Your task to perform on an android device: change notifications settings Image 0: 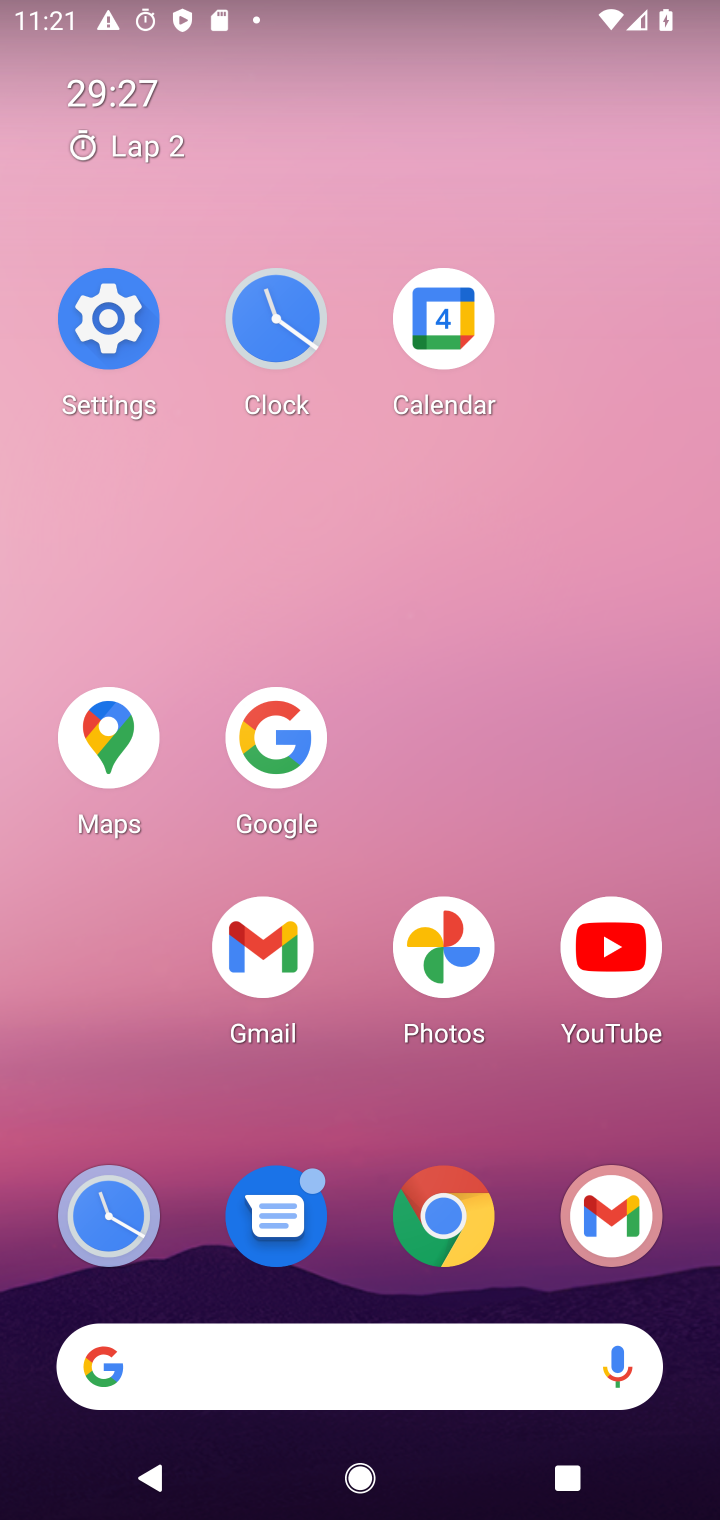
Step 0: click (98, 271)
Your task to perform on an android device: change notifications settings Image 1: 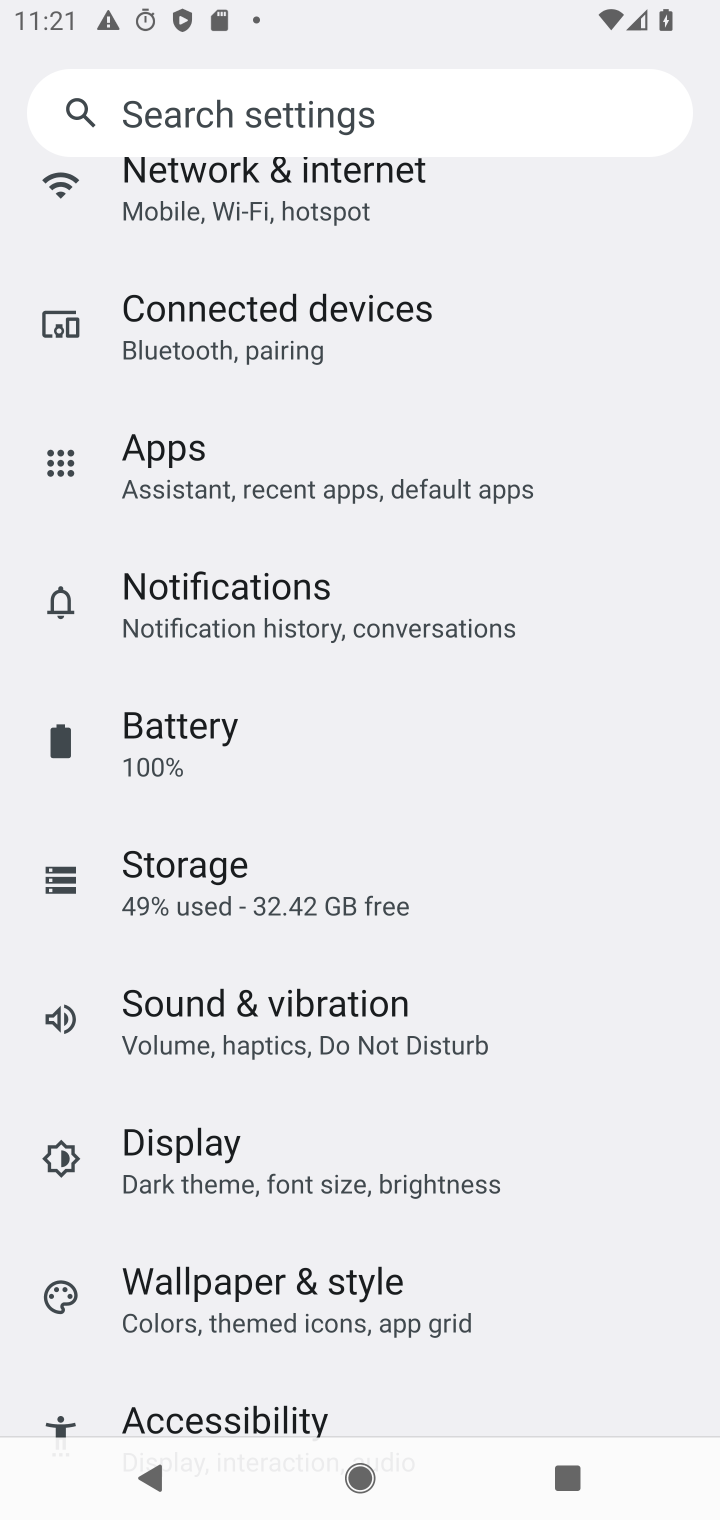
Step 1: click (383, 635)
Your task to perform on an android device: change notifications settings Image 2: 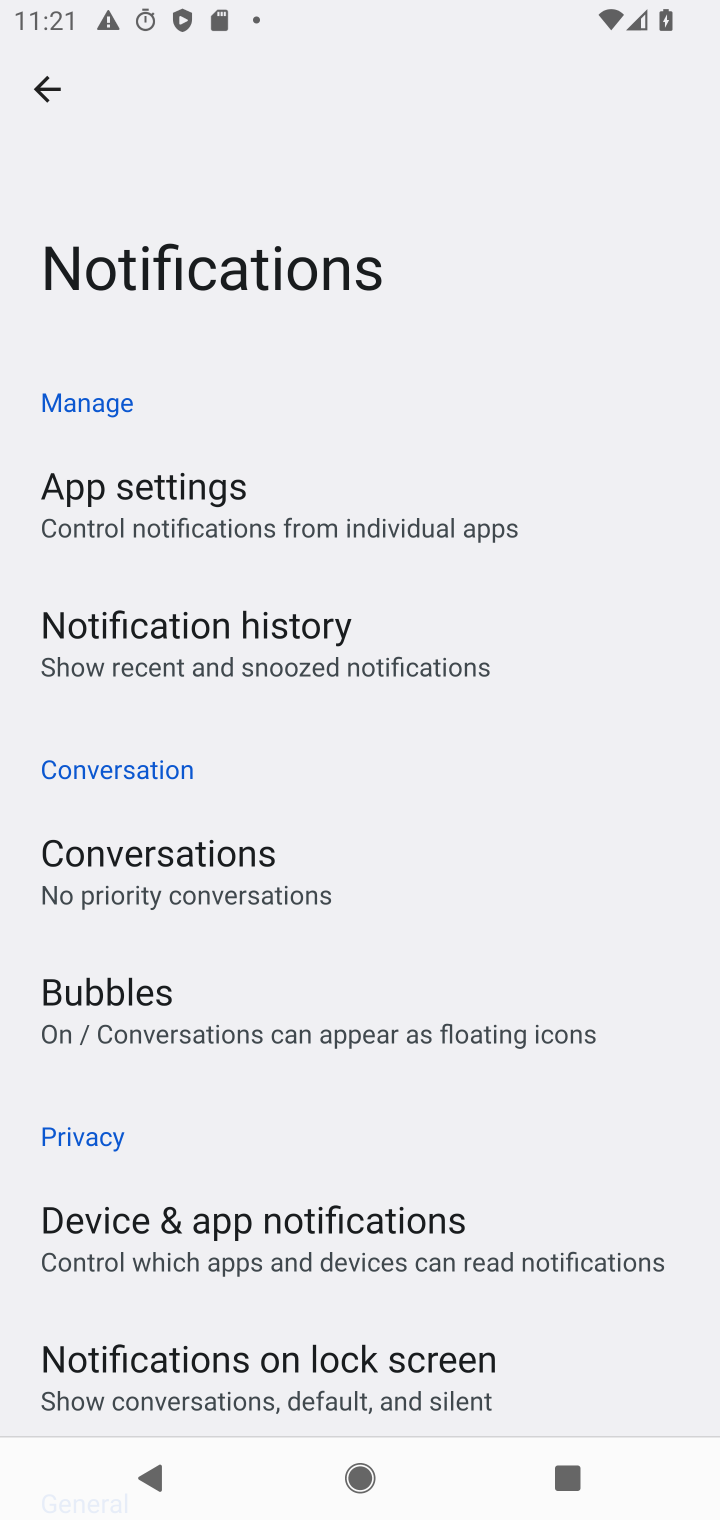
Step 2: task complete